Your task to perform on an android device: open sync settings in chrome Image 0: 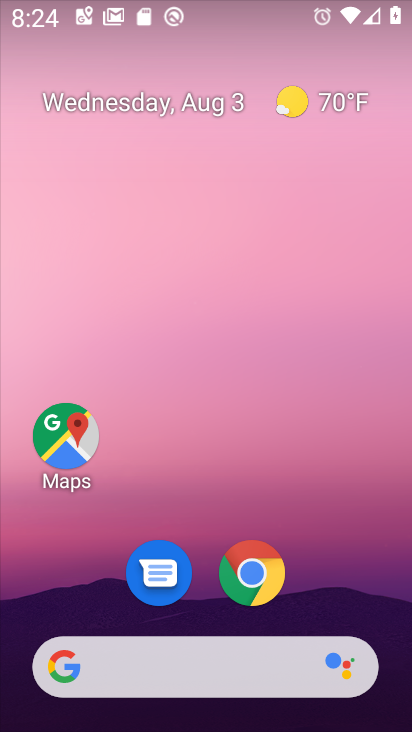
Step 0: click (259, 580)
Your task to perform on an android device: open sync settings in chrome Image 1: 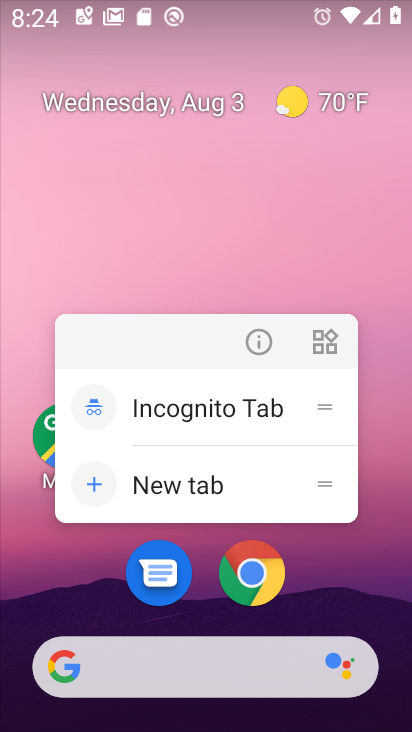
Step 1: click (255, 573)
Your task to perform on an android device: open sync settings in chrome Image 2: 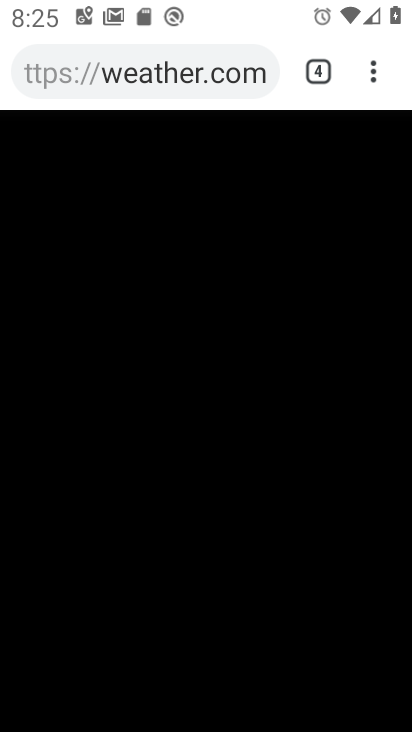
Step 2: click (372, 66)
Your task to perform on an android device: open sync settings in chrome Image 3: 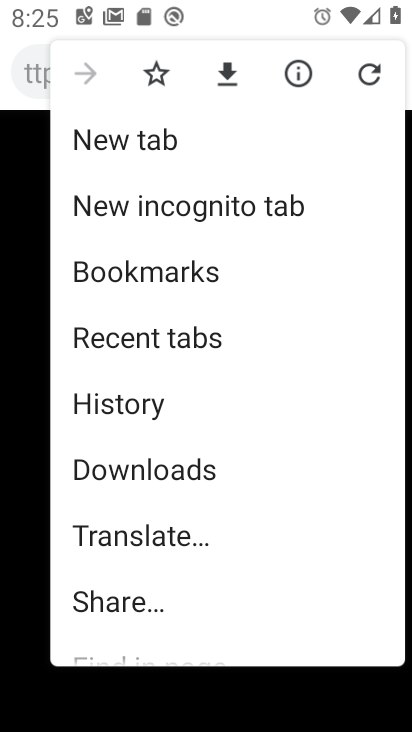
Step 3: drag from (263, 515) to (233, 147)
Your task to perform on an android device: open sync settings in chrome Image 4: 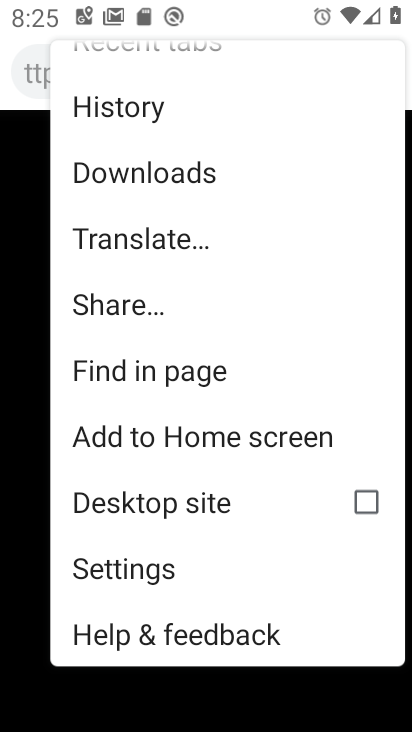
Step 4: click (130, 567)
Your task to perform on an android device: open sync settings in chrome Image 5: 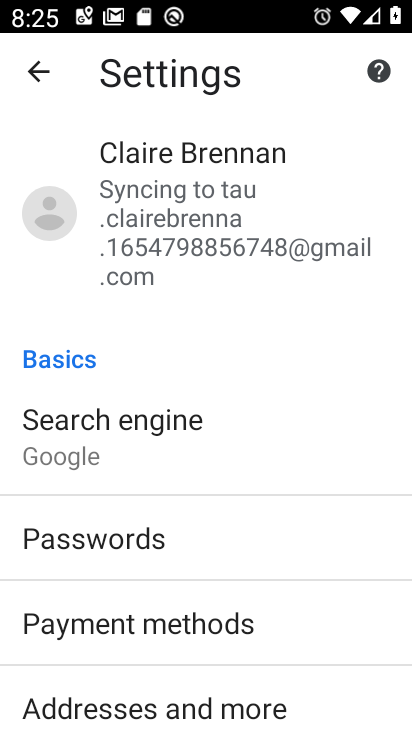
Step 5: click (169, 178)
Your task to perform on an android device: open sync settings in chrome Image 6: 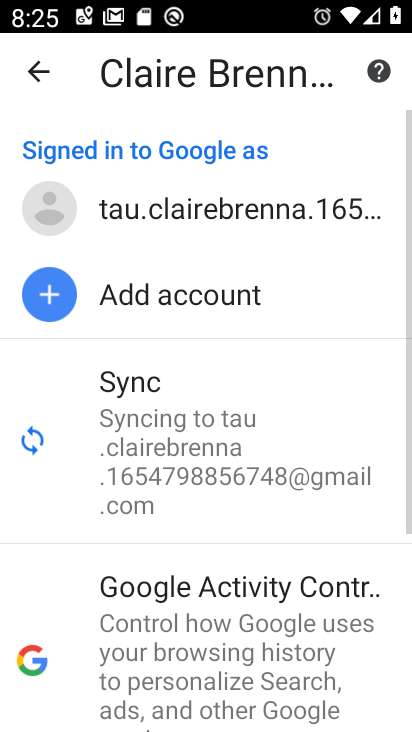
Step 6: click (126, 428)
Your task to perform on an android device: open sync settings in chrome Image 7: 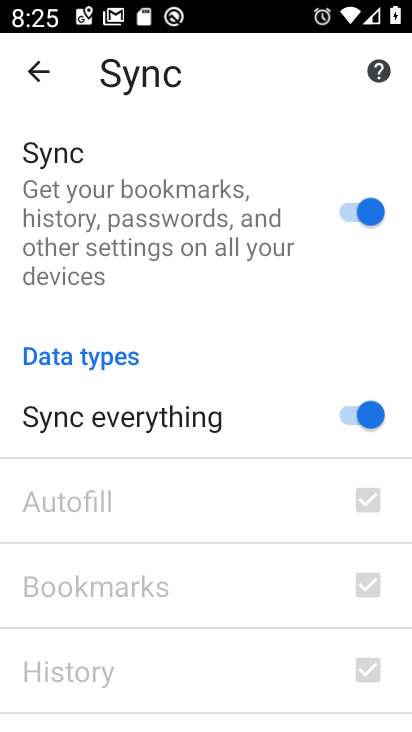
Step 7: task complete